Your task to perform on an android device: add a label to a message in the gmail app Image 0: 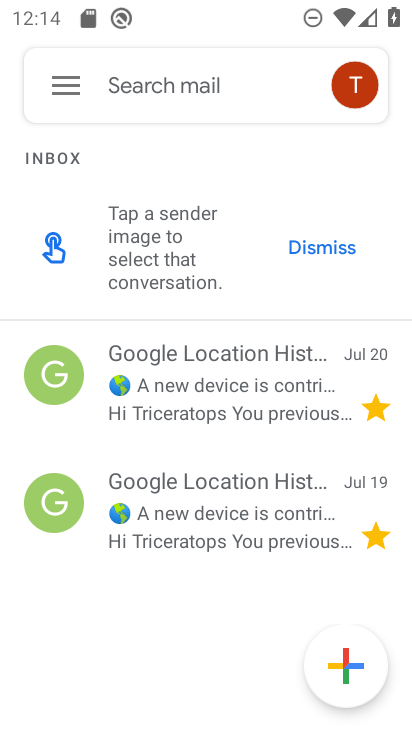
Step 0: press home button
Your task to perform on an android device: add a label to a message in the gmail app Image 1: 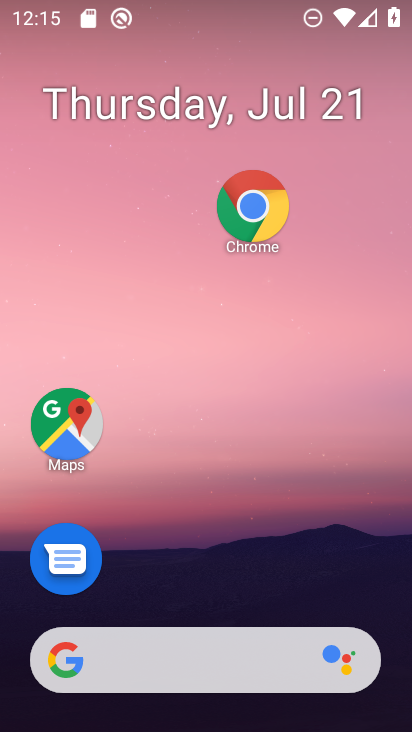
Step 1: drag from (273, 519) to (154, 156)
Your task to perform on an android device: add a label to a message in the gmail app Image 2: 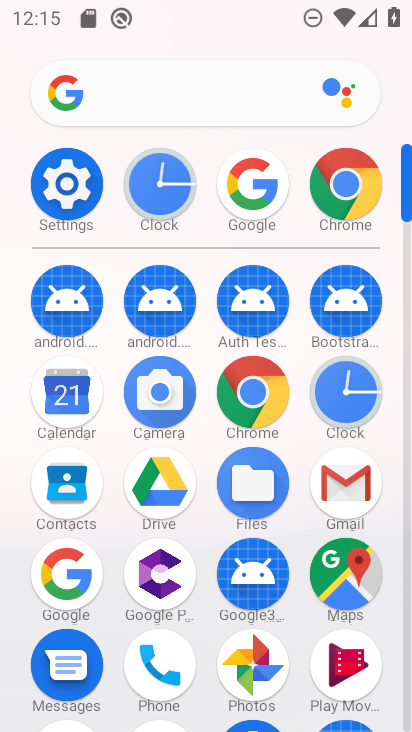
Step 2: click (338, 477)
Your task to perform on an android device: add a label to a message in the gmail app Image 3: 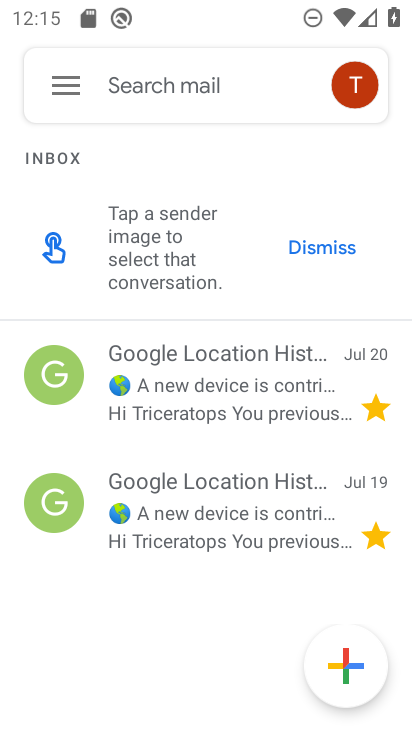
Step 3: task complete